Your task to perform on an android device: change the clock style Image 0: 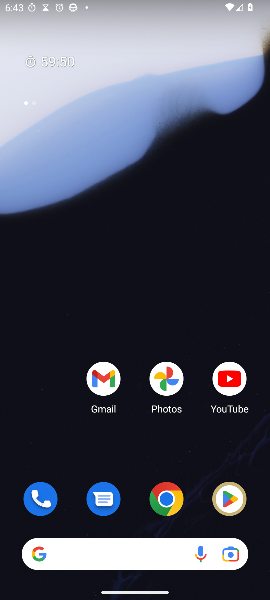
Step 0: drag from (72, 404) to (16, 233)
Your task to perform on an android device: change the clock style Image 1: 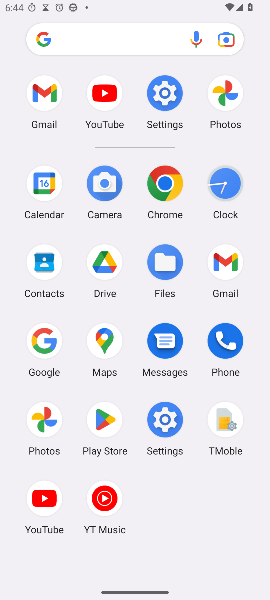
Step 1: click (232, 183)
Your task to perform on an android device: change the clock style Image 2: 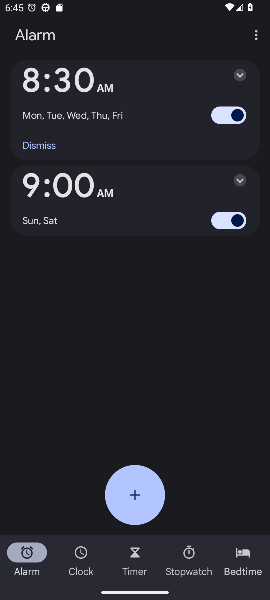
Step 2: click (250, 42)
Your task to perform on an android device: change the clock style Image 3: 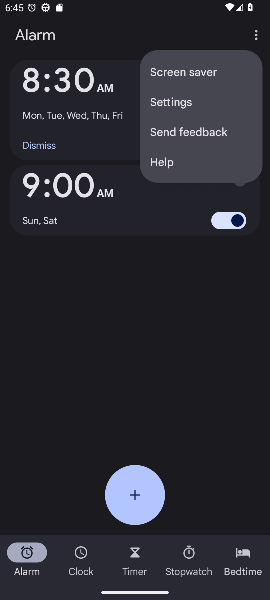
Step 3: click (156, 98)
Your task to perform on an android device: change the clock style Image 4: 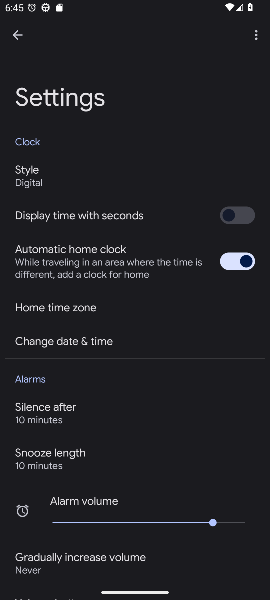
Step 4: click (41, 179)
Your task to perform on an android device: change the clock style Image 5: 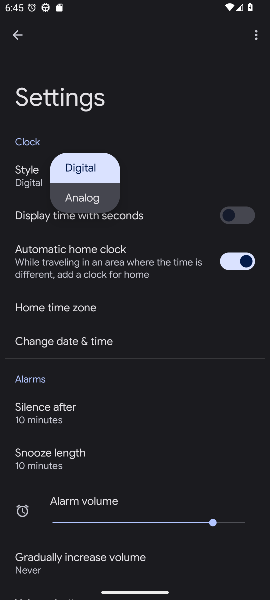
Step 5: click (82, 202)
Your task to perform on an android device: change the clock style Image 6: 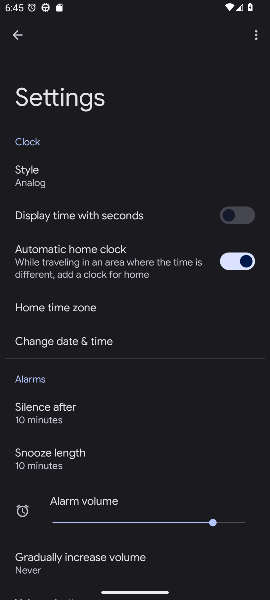
Step 6: task complete